Your task to perform on an android device: Is it going to rain this weekend? Image 0: 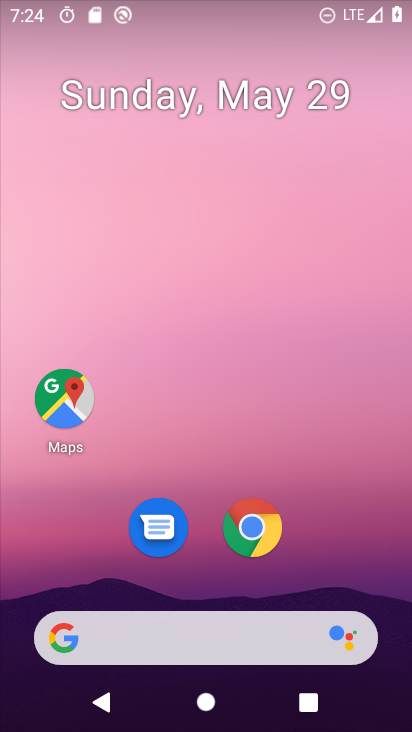
Step 0: drag from (401, 633) to (332, 34)
Your task to perform on an android device: Is it going to rain this weekend? Image 1: 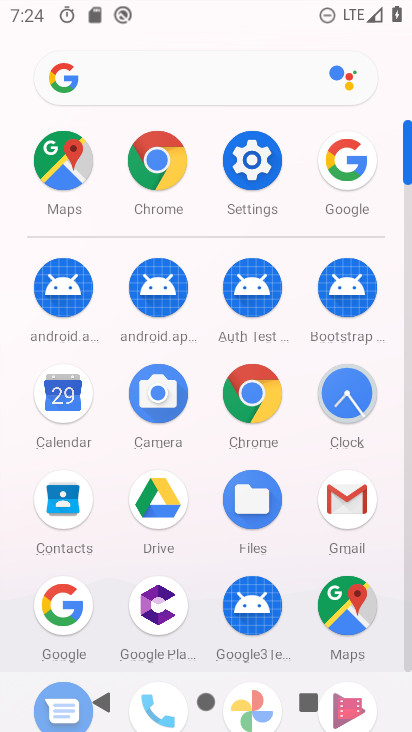
Step 1: click (366, 164)
Your task to perform on an android device: Is it going to rain this weekend? Image 2: 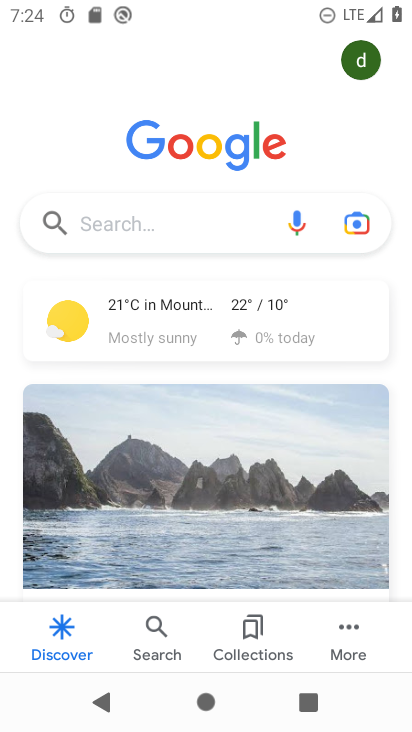
Step 2: click (126, 233)
Your task to perform on an android device: Is it going to rain this weekend? Image 3: 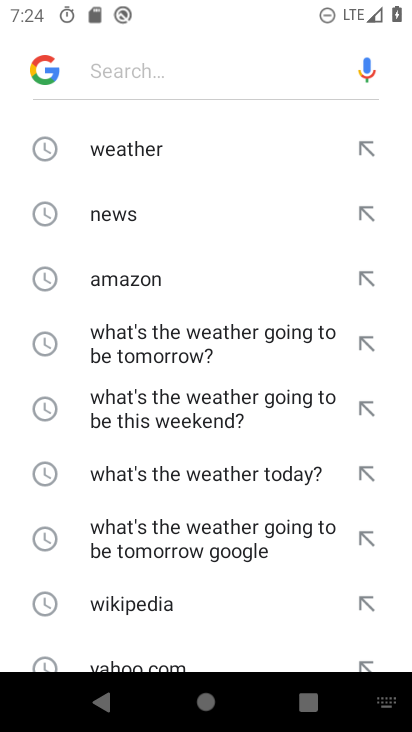
Step 3: drag from (127, 558) to (170, 191)
Your task to perform on an android device: Is it going to rain this weekend? Image 4: 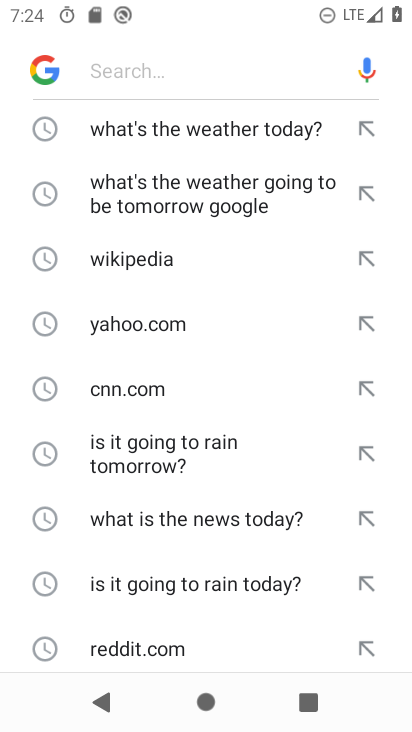
Step 4: drag from (205, 613) to (214, 174)
Your task to perform on an android device: Is it going to rain this weekend? Image 5: 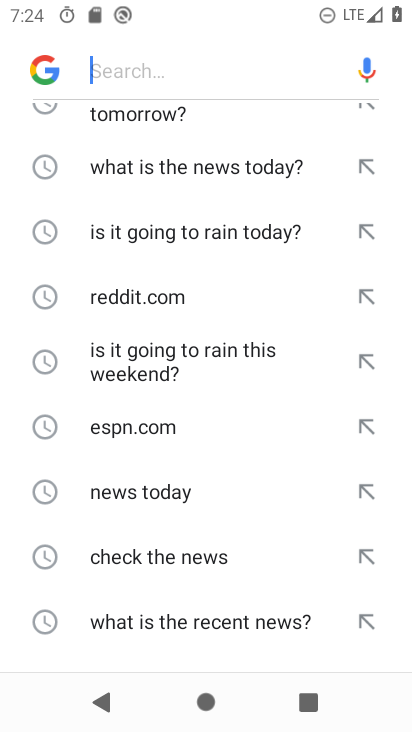
Step 5: drag from (212, 624) to (262, 279)
Your task to perform on an android device: Is it going to rain this weekend? Image 6: 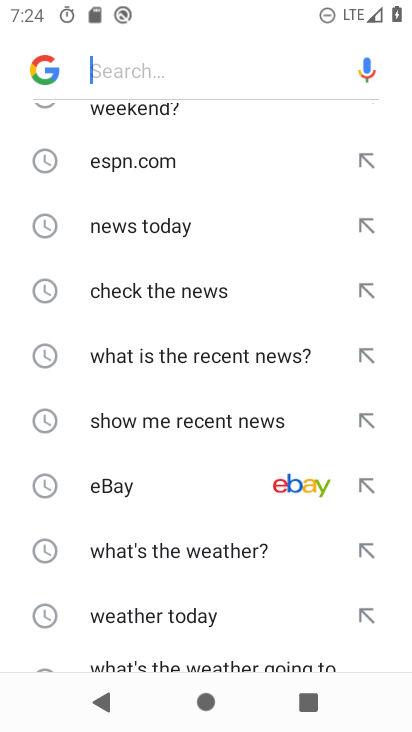
Step 6: click (174, 124)
Your task to perform on an android device: Is it going to rain this weekend? Image 7: 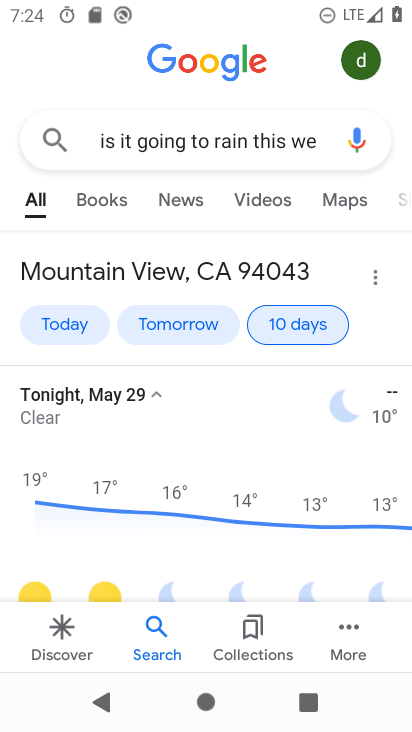
Step 7: task complete